Your task to perform on an android device: Open the calendar and show me this week's events? Image 0: 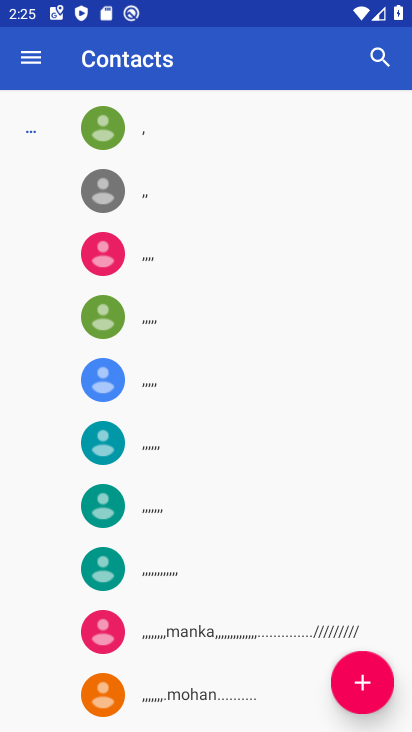
Step 0: press home button
Your task to perform on an android device: Open the calendar and show me this week's events? Image 1: 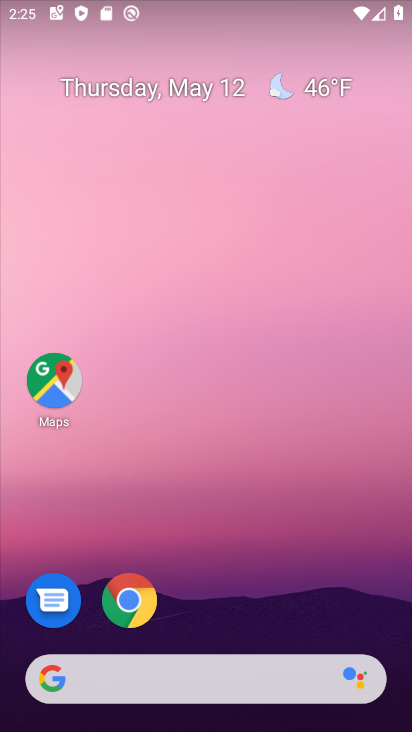
Step 1: drag from (196, 604) to (283, 191)
Your task to perform on an android device: Open the calendar and show me this week's events? Image 2: 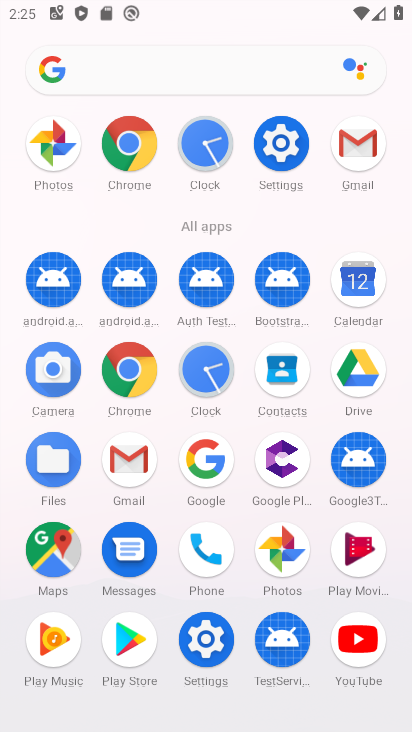
Step 2: click (358, 296)
Your task to perform on an android device: Open the calendar and show me this week's events? Image 3: 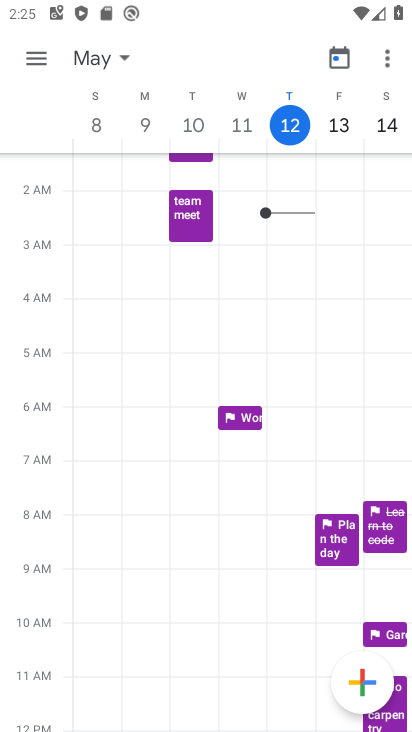
Step 3: task complete